Your task to perform on an android device: turn on showing notifications on the lock screen Image 0: 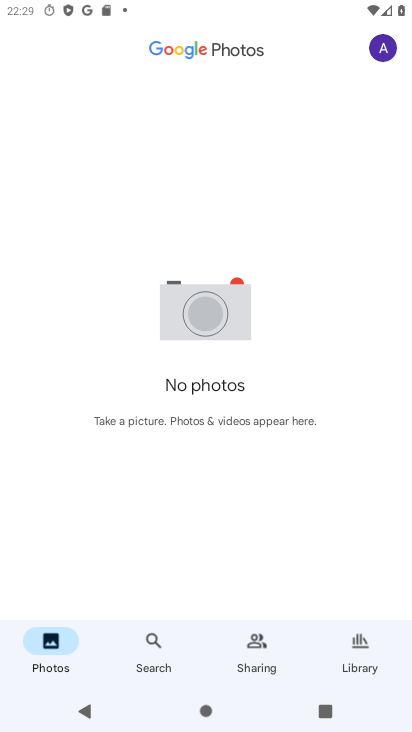
Step 0: press home button
Your task to perform on an android device: turn on showing notifications on the lock screen Image 1: 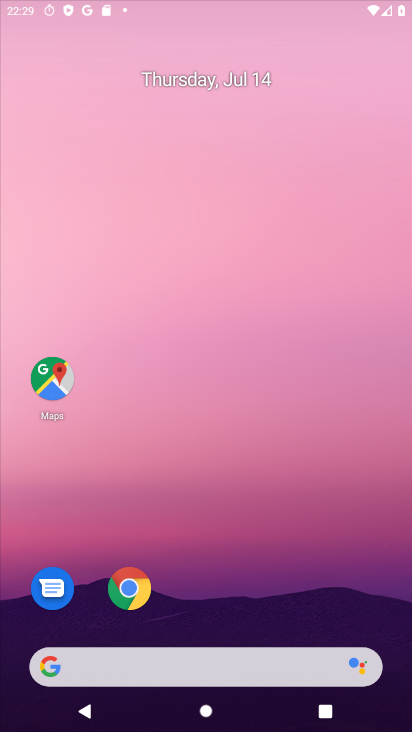
Step 1: drag from (243, 603) to (266, 170)
Your task to perform on an android device: turn on showing notifications on the lock screen Image 2: 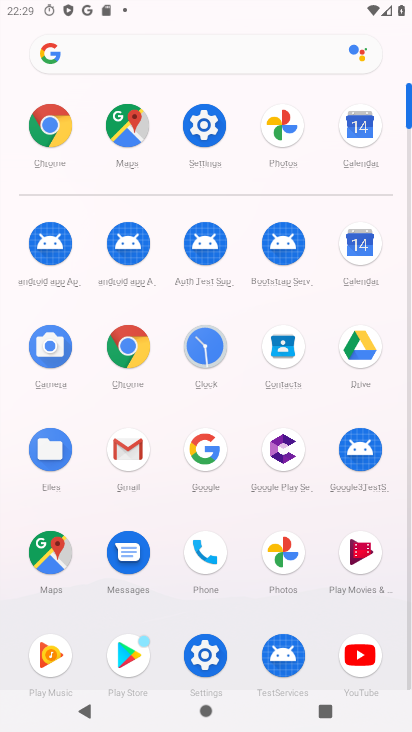
Step 2: click (206, 110)
Your task to perform on an android device: turn on showing notifications on the lock screen Image 3: 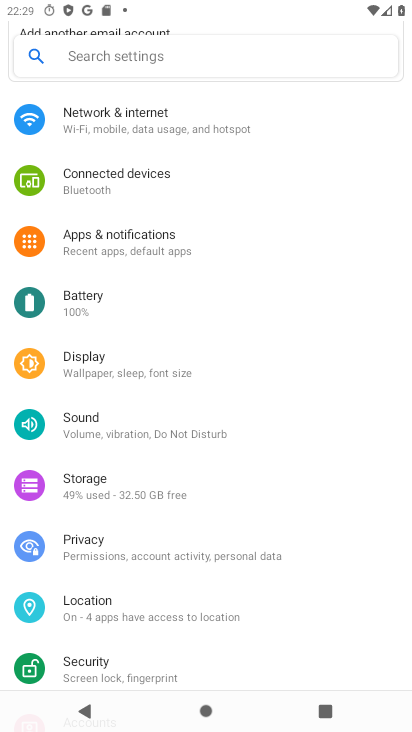
Step 3: click (162, 244)
Your task to perform on an android device: turn on showing notifications on the lock screen Image 4: 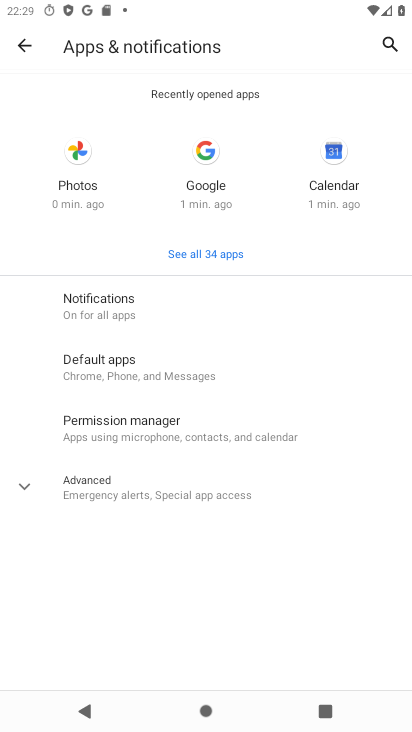
Step 4: click (132, 308)
Your task to perform on an android device: turn on showing notifications on the lock screen Image 5: 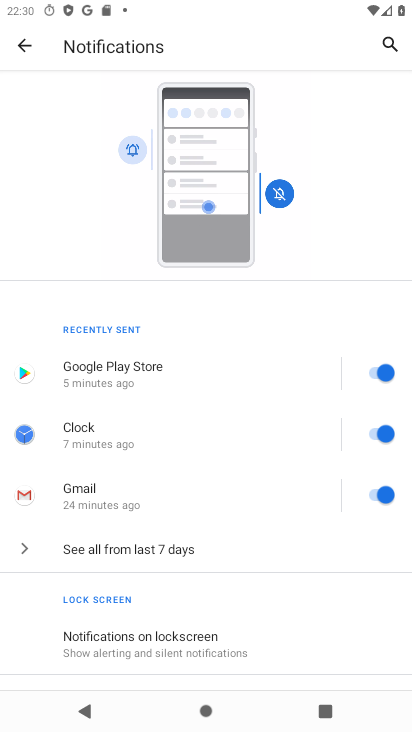
Step 5: click (128, 648)
Your task to perform on an android device: turn on showing notifications on the lock screen Image 6: 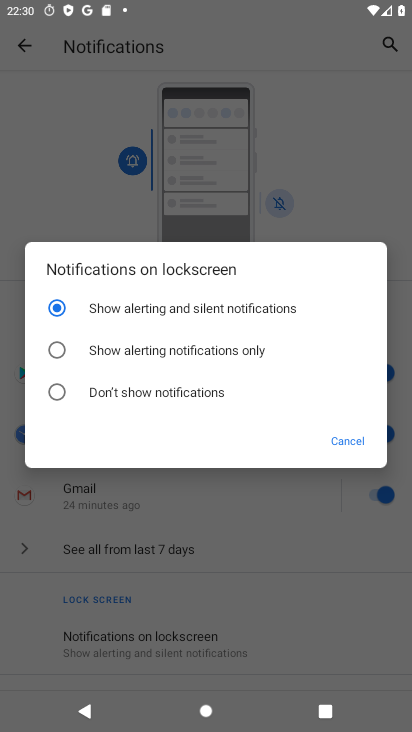
Step 6: task complete